Your task to perform on an android device: change your default location settings in chrome Image 0: 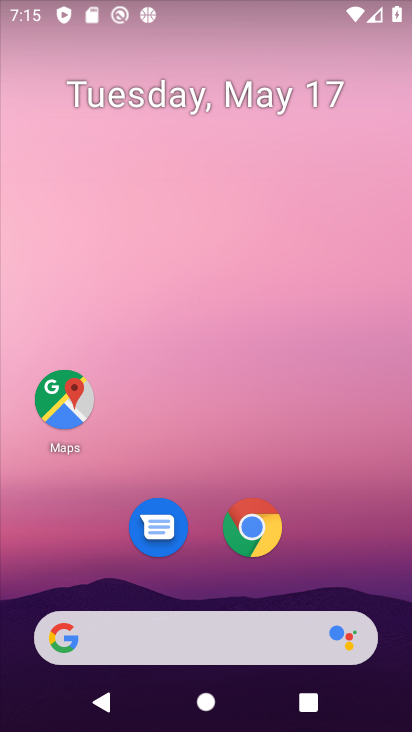
Step 0: click (261, 532)
Your task to perform on an android device: change your default location settings in chrome Image 1: 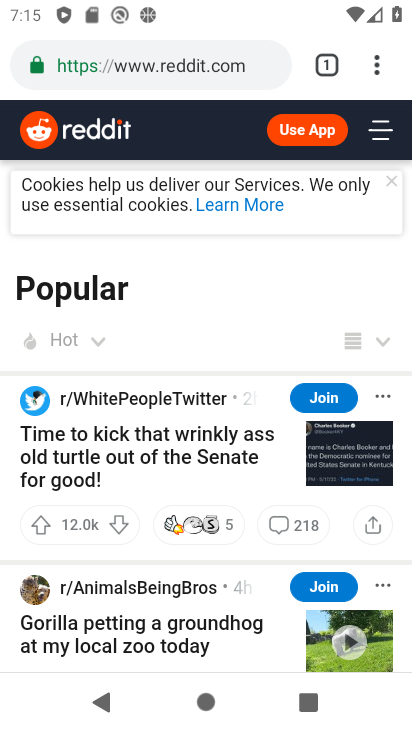
Step 1: click (380, 76)
Your task to perform on an android device: change your default location settings in chrome Image 2: 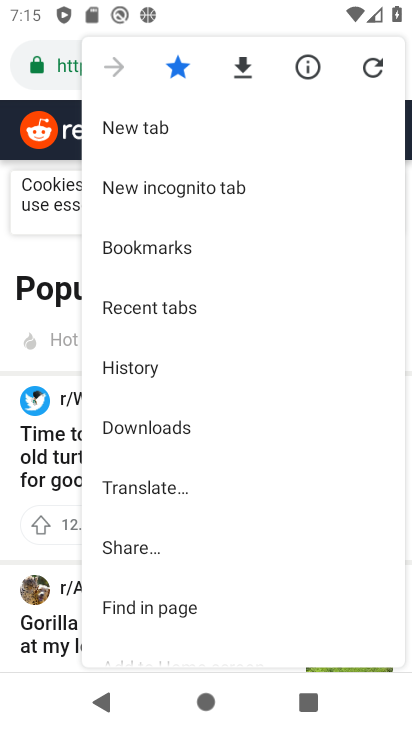
Step 2: drag from (190, 548) to (177, 191)
Your task to perform on an android device: change your default location settings in chrome Image 3: 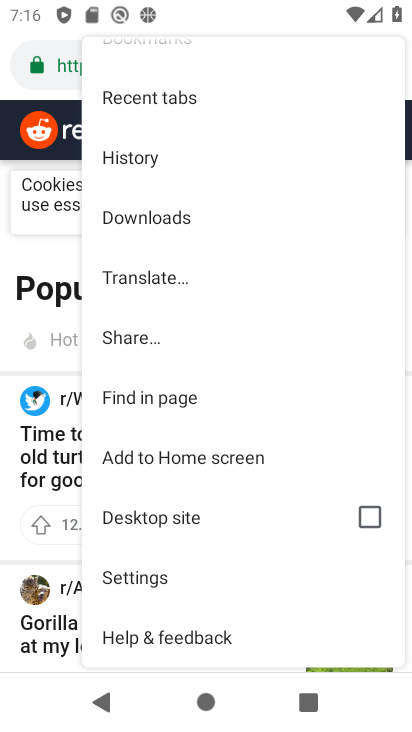
Step 3: drag from (212, 593) to (224, 237)
Your task to perform on an android device: change your default location settings in chrome Image 4: 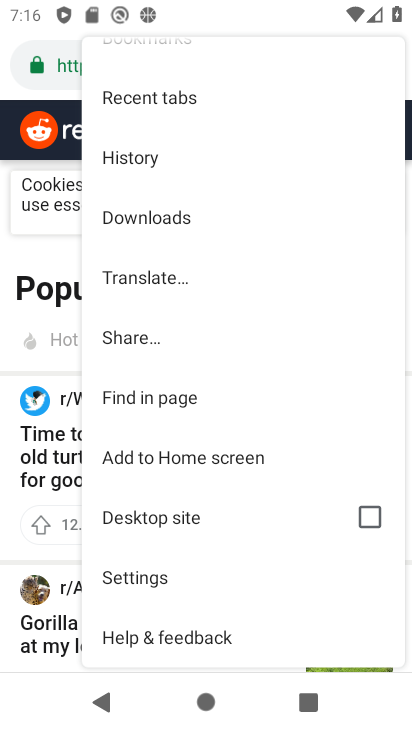
Step 4: click (160, 566)
Your task to perform on an android device: change your default location settings in chrome Image 5: 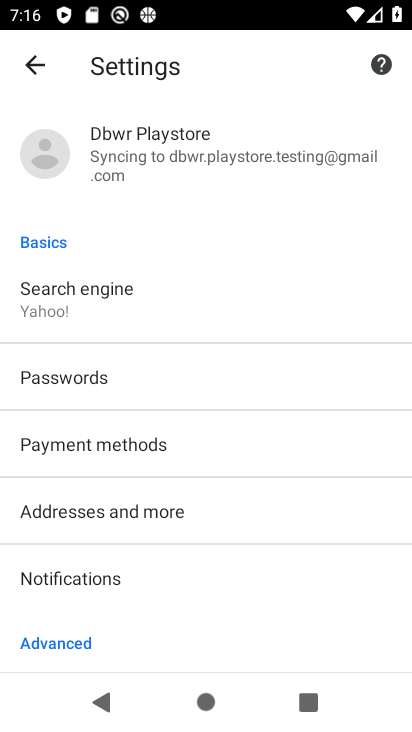
Step 5: drag from (232, 485) to (222, 189)
Your task to perform on an android device: change your default location settings in chrome Image 6: 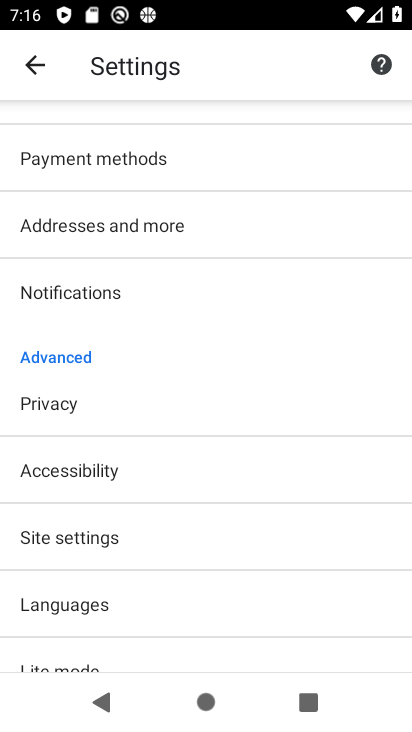
Step 6: click (128, 533)
Your task to perform on an android device: change your default location settings in chrome Image 7: 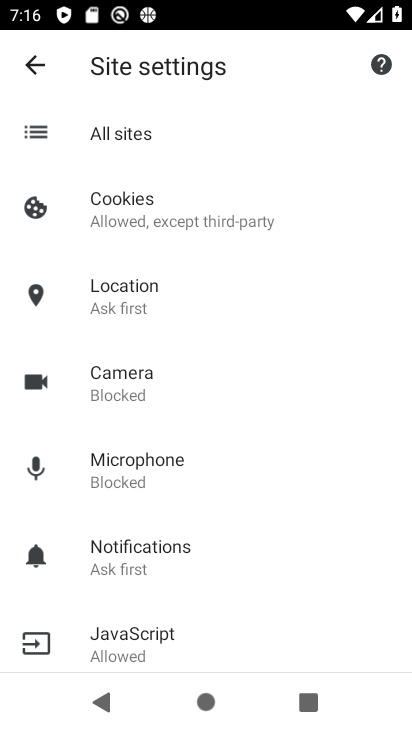
Step 7: click (184, 284)
Your task to perform on an android device: change your default location settings in chrome Image 8: 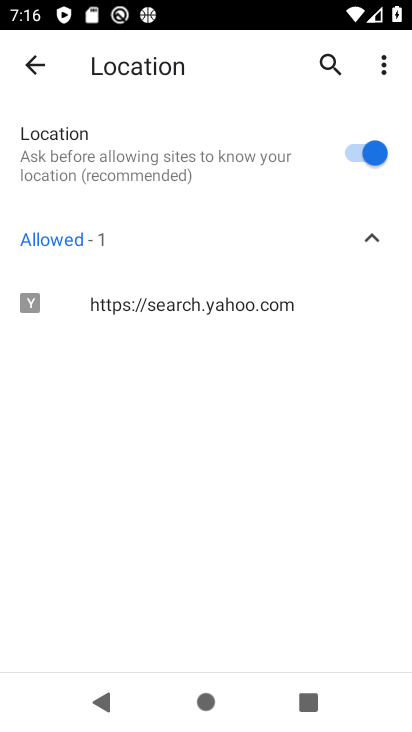
Step 8: click (359, 153)
Your task to perform on an android device: change your default location settings in chrome Image 9: 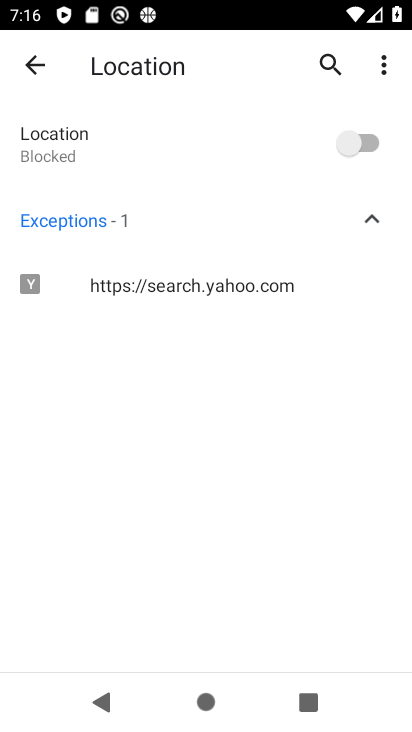
Step 9: task complete